Your task to perform on an android device: What's the weather going to be this weekend? Image 0: 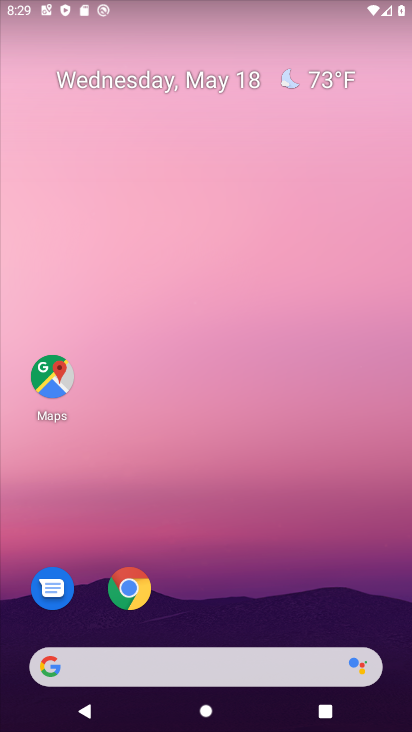
Step 0: drag from (321, 560) to (310, 190)
Your task to perform on an android device: What's the weather going to be this weekend? Image 1: 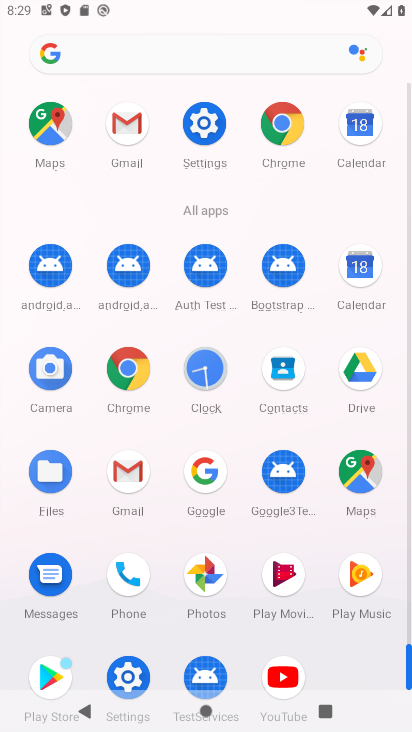
Step 1: click (120, 370)
Your task to perform on an android device: What's the weather going to be this weekend? Image 2: 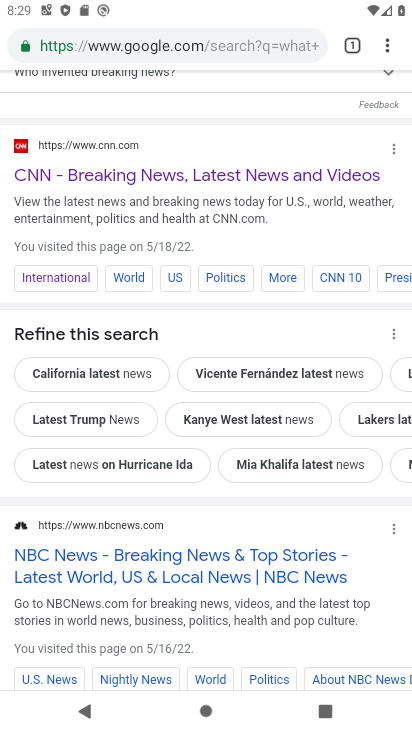
Step 2: click (225, 73)
Your task to perform on an android device: What's the weather going to be this weekend? Image 3: 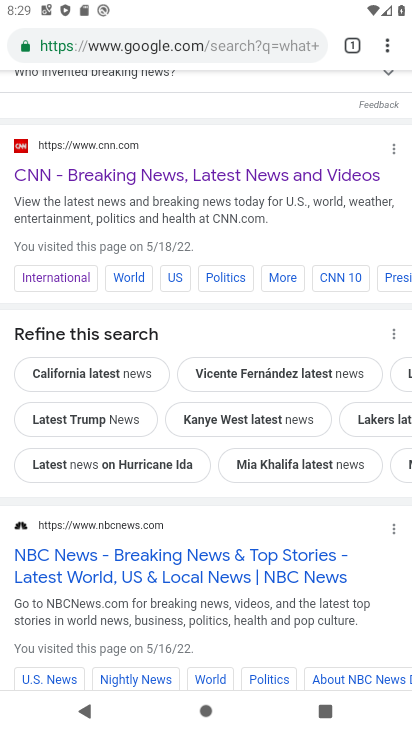
Step 3: click (221, 58)
Your task to perform on an android device: What's the weather going to be this weekend? Image 4: 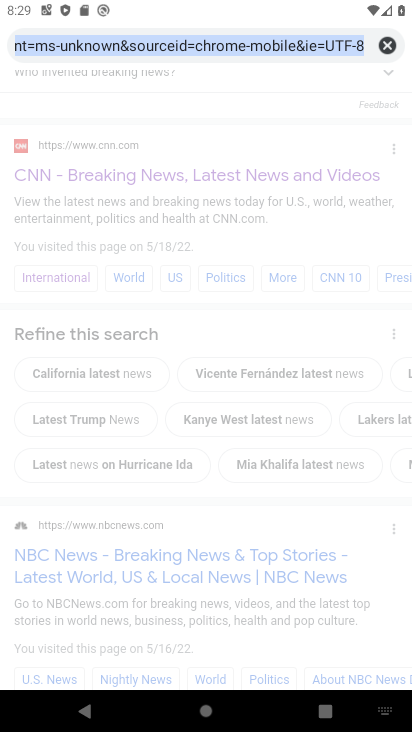
Step 4: click (393, 49)
Your task to perform on an android device: What's the weather going to be this weekend? Image 5: 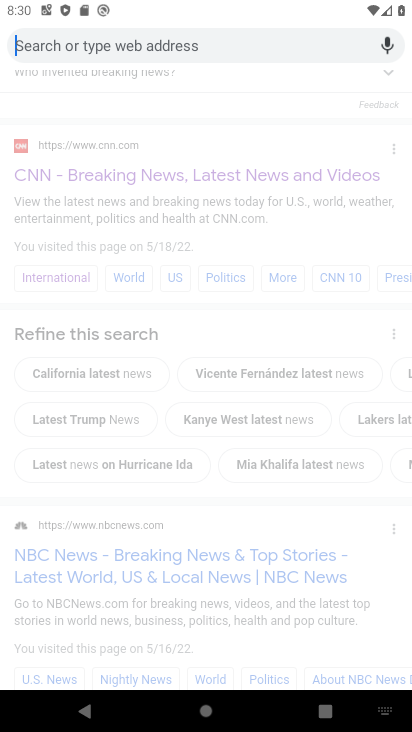
Step 5: type "what's the weather going to be this weekend "
Your task to perform on an android device: What's the weather going to be this weekend? Image 6: 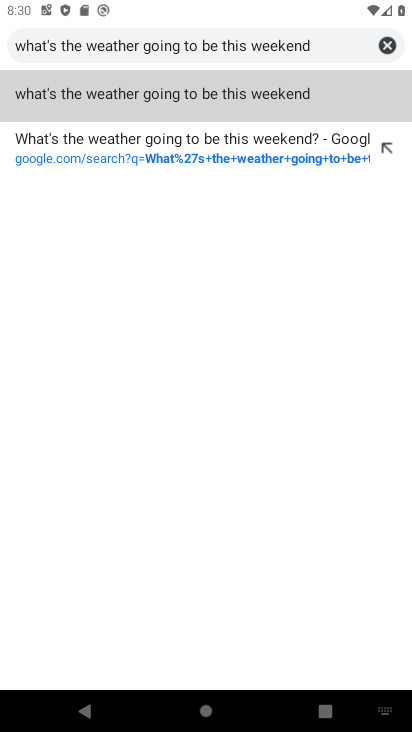
Step 6: click (182, 93)
Your task to perform on an android device: What's the weather going to be this weekend? Image 7: 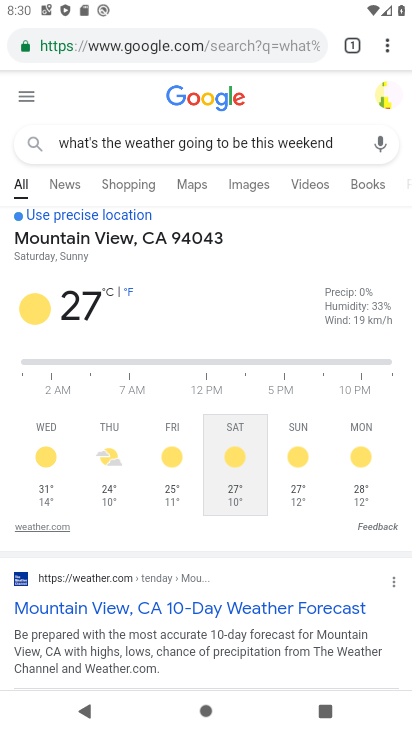
Step 7: task complete